Your task to perform on an android device: change the upload size in google photos Image 0: 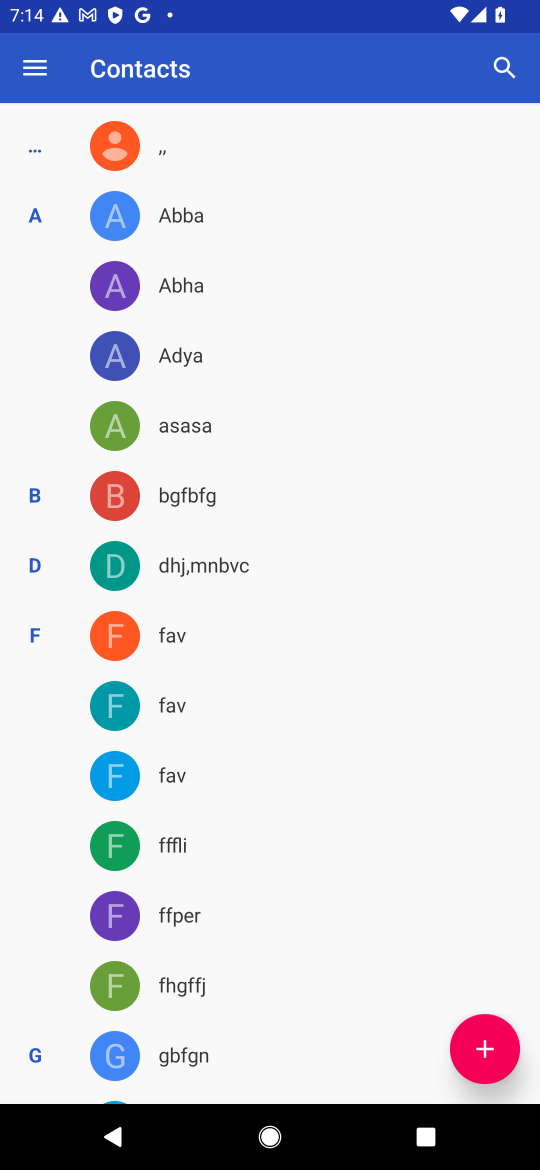
Step 0: press home button
Your task to perform on an android device: change the upload size in google photos Image 1: 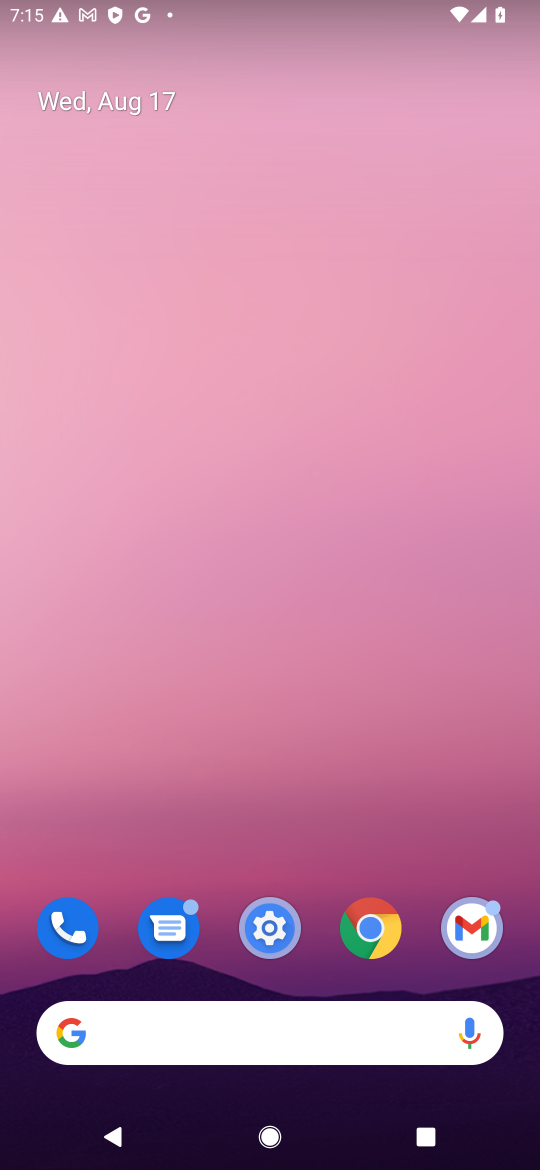
Step 1: drag from (276, 1024) to (197, 139)
Your task to perform on an android device: change the upload size in google photos Image 2: 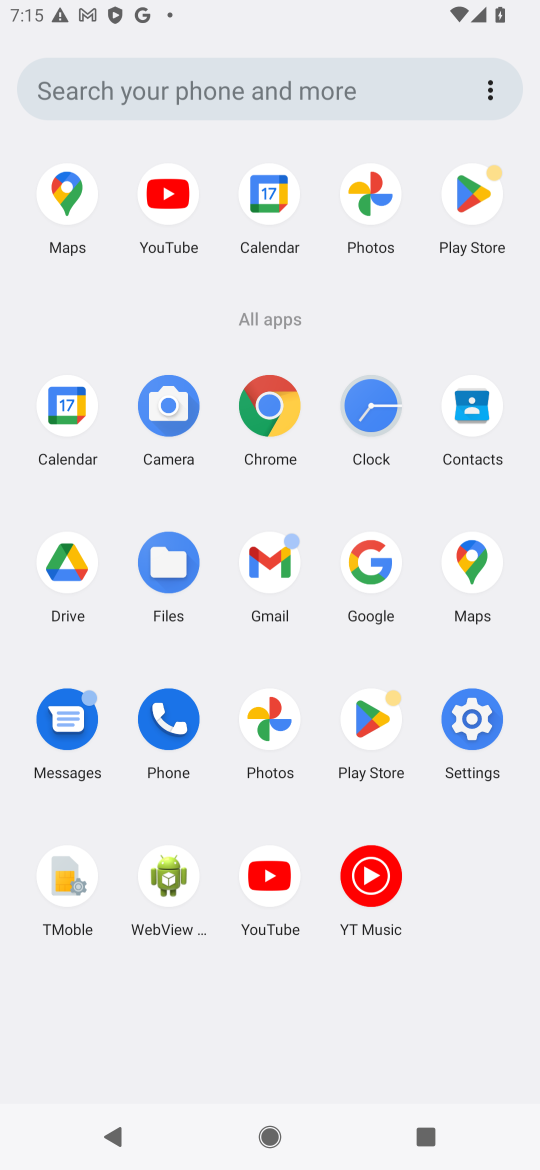
Step 2: click (262, 715)
Your task to perform on an android device: change the upload size in google photos Image 3: 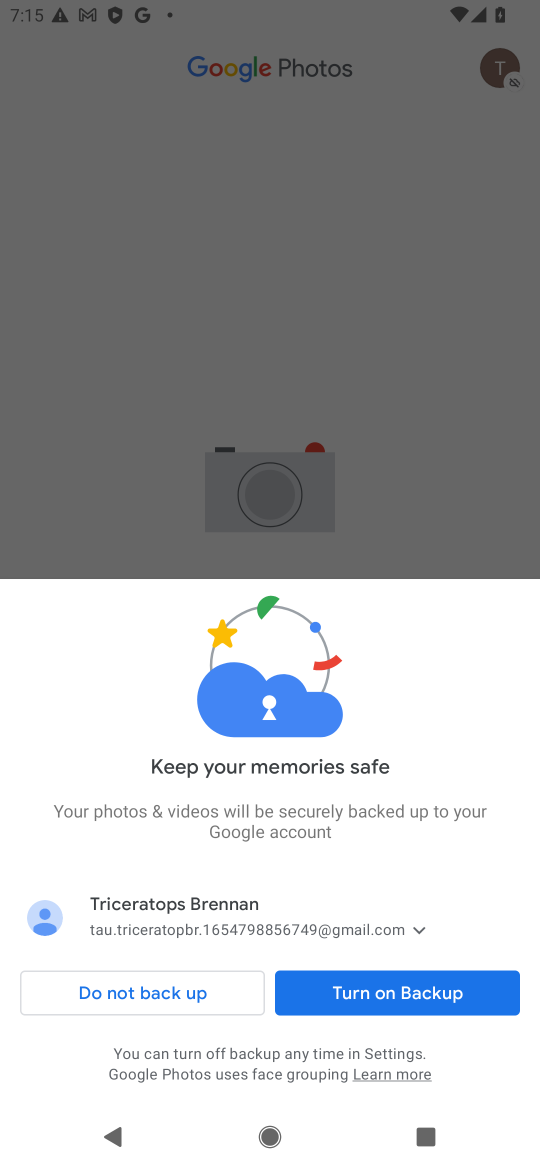
Step 3: press home button
Your task to perform on an android device: change the upload size in google photos Image 4: 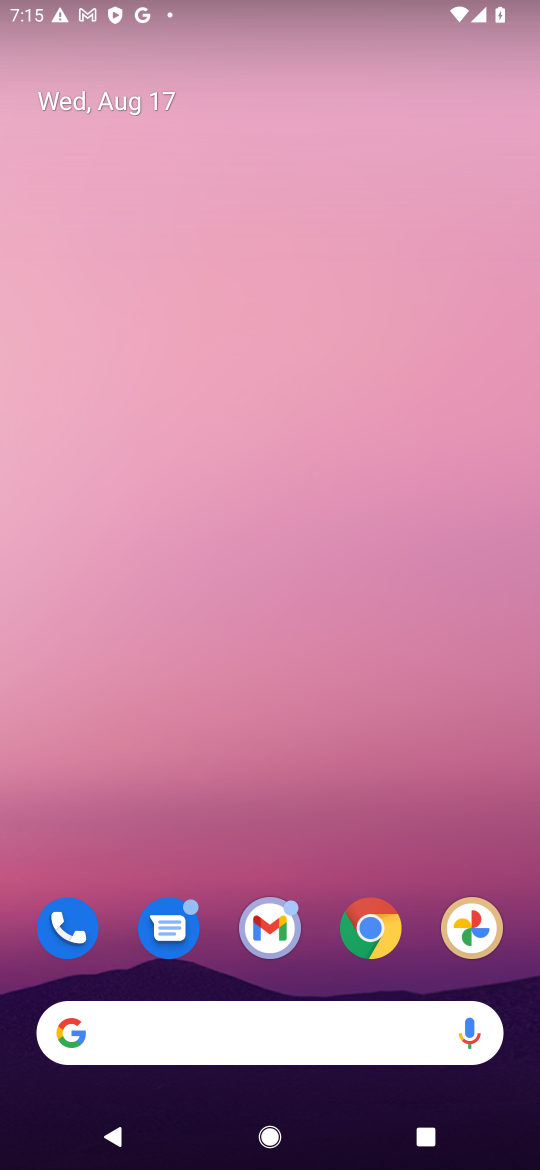
Step 4: drag from (287, 1028) to (293, 170)
Your task to perform on an android device: change the upload size in google photos Image 5: 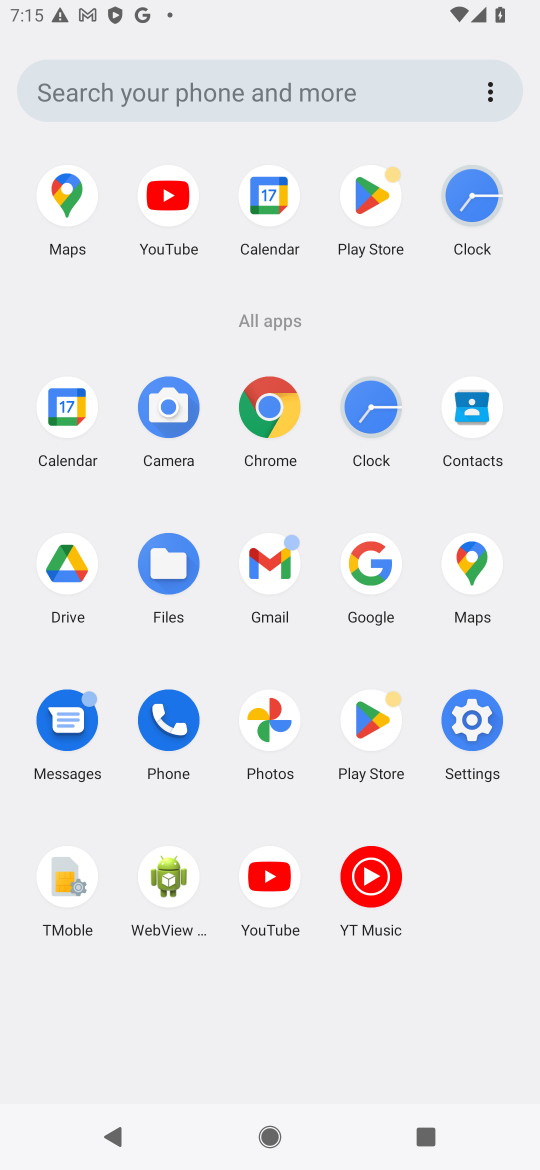
Step 5: click (283, 747)
Your task to perform on an android device: change the upload size in google photos Image 6: 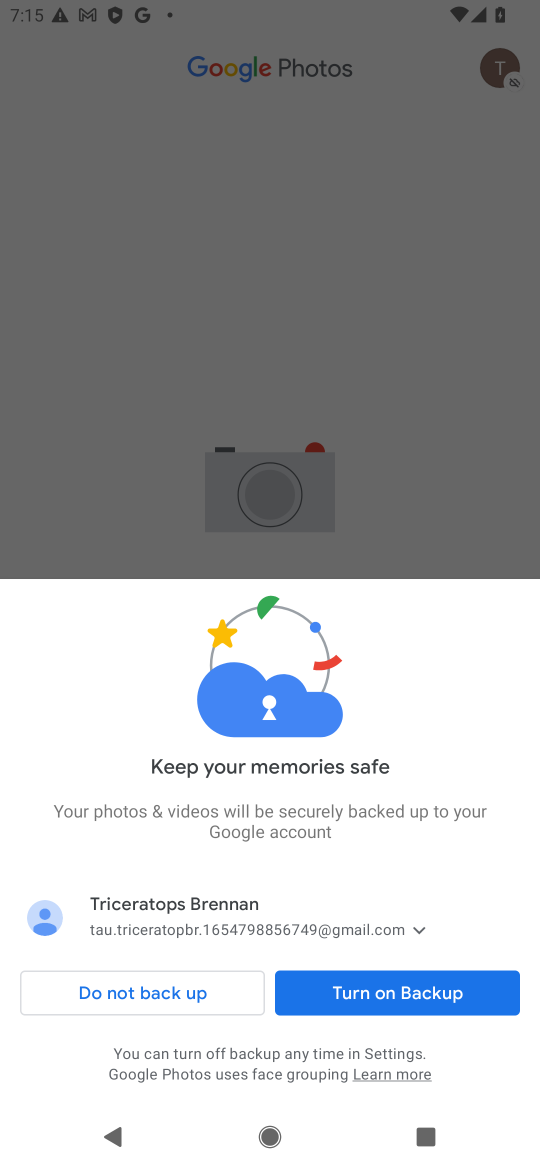
Step 6: click (369, 1005)
Your task to perform on an android device: change the upload size in google photos Image 7: 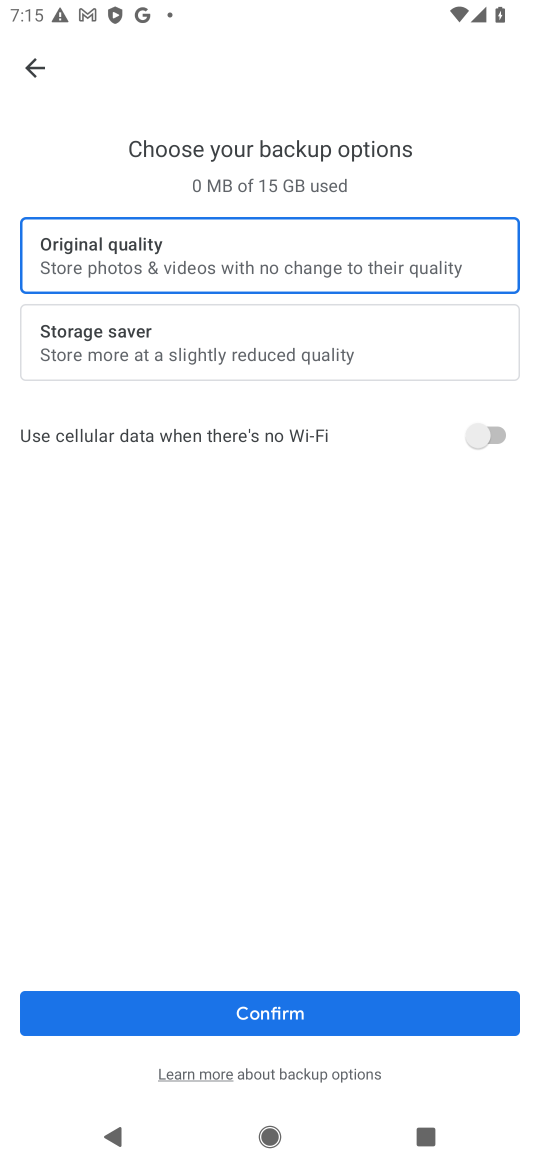
Step 7: click (149, 363)
Your task to perform on an android device: change the upload size in google photos Image 8: 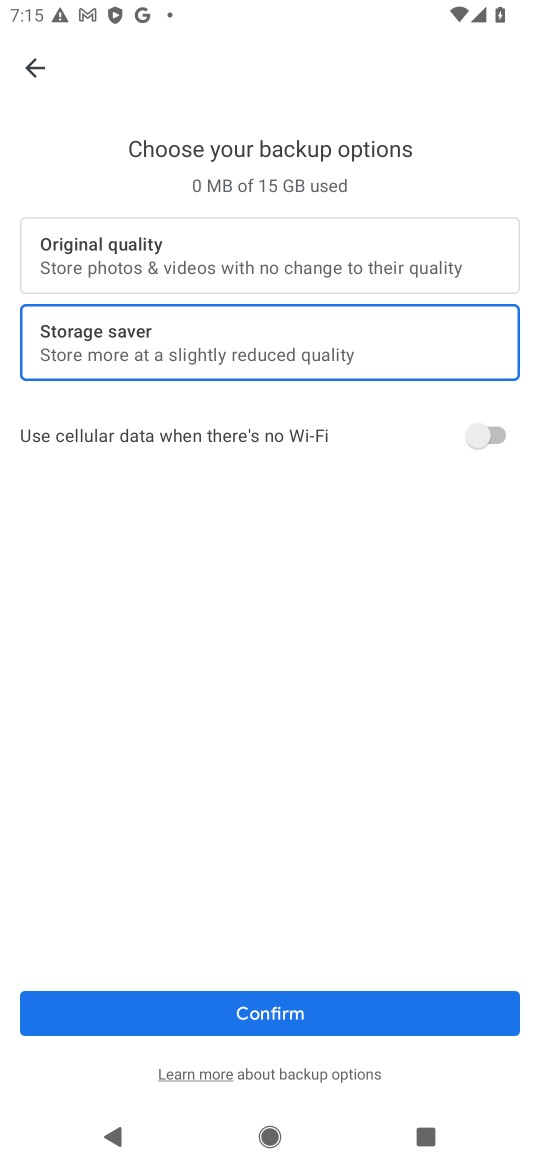
Step 8: click (264, 1023)
Your task to perform on an android device: change the upload size in google photos Image 9: 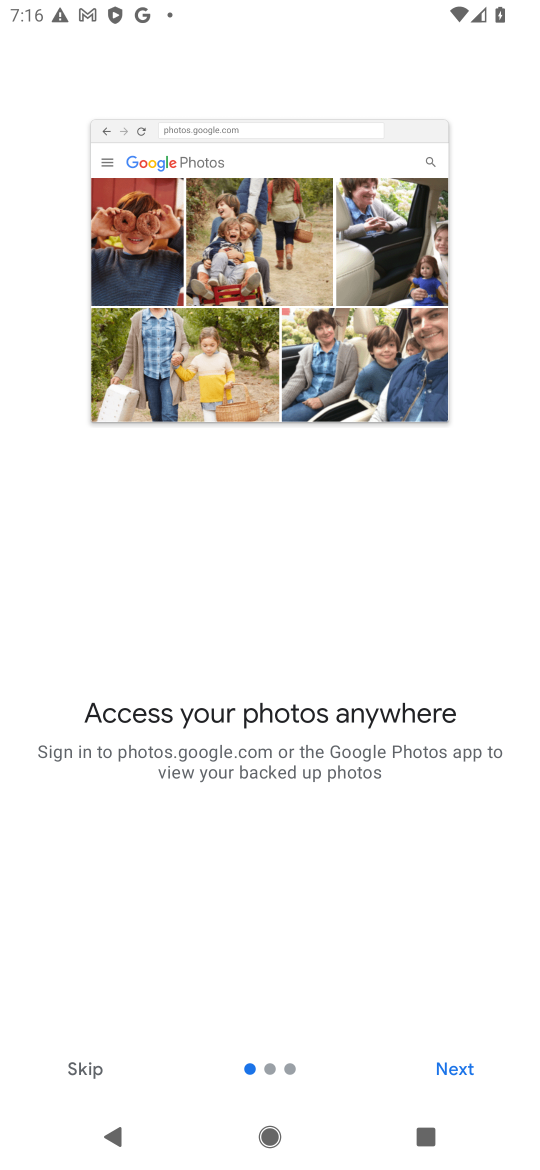
Step 9: task complete